Your task to perform on an android device: Go to Reddit.com Image 0: 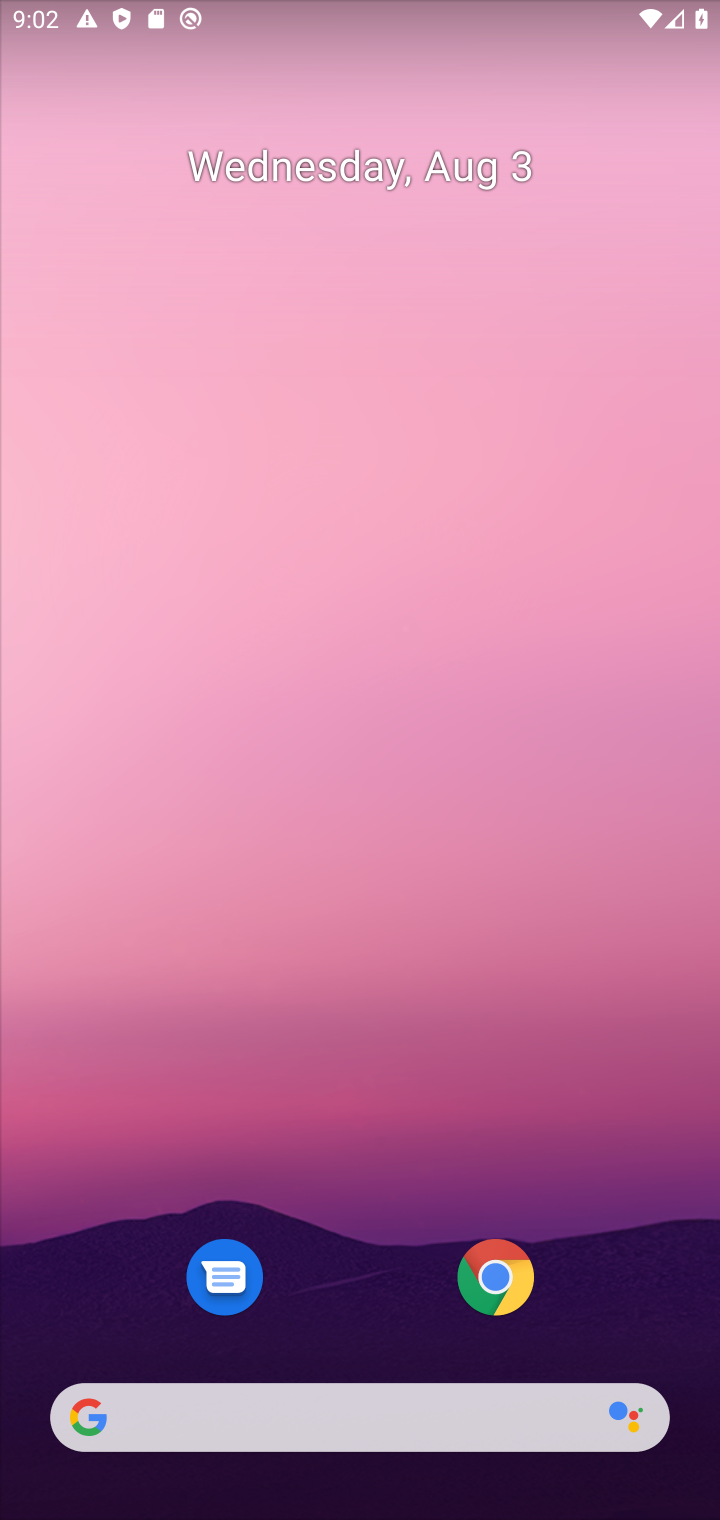
Step 0: drag from (366, 1201) to (406, 134)
Your task to perform on an android device: Go to Reddit.com Image 1: 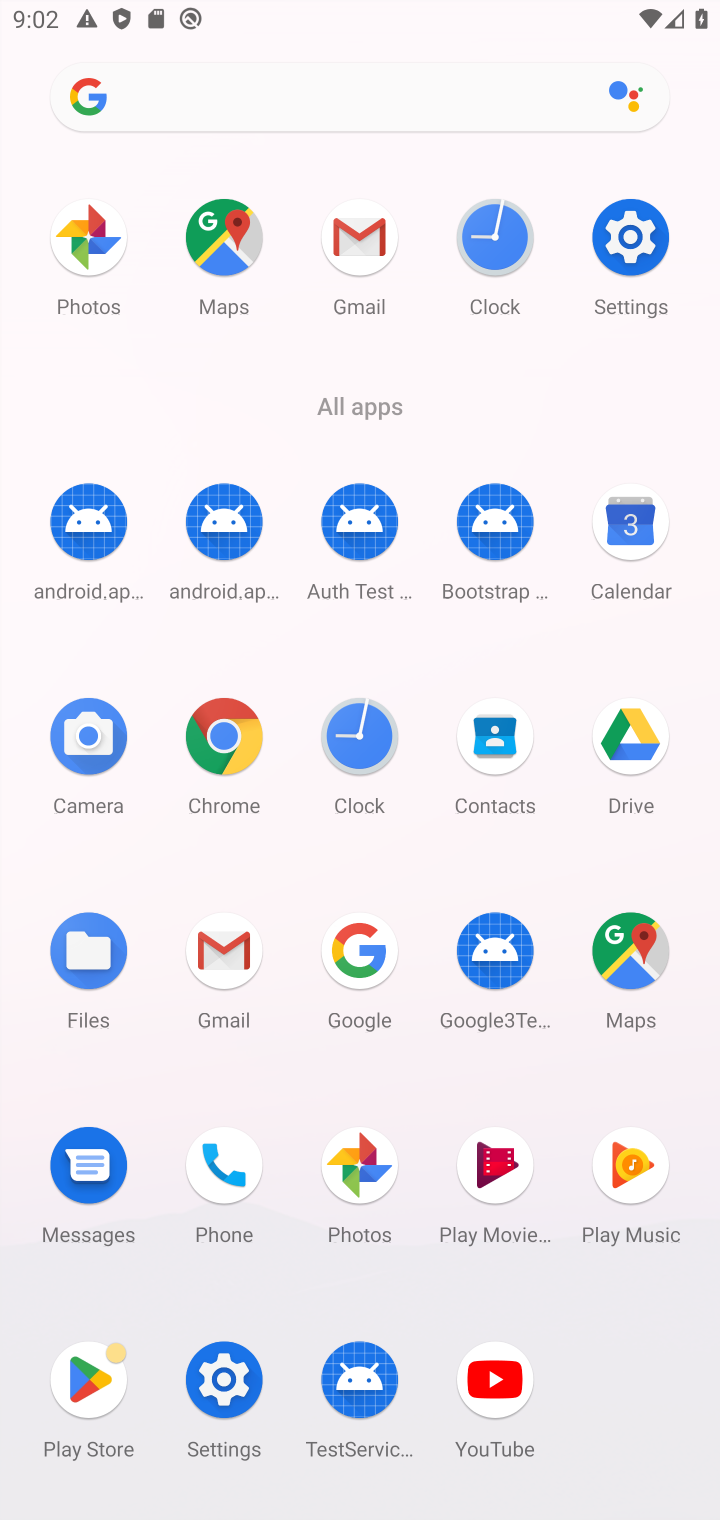
Step 1: click (224, 741)
Your task to perform on an android device: Go to Reddit.com Image 2: 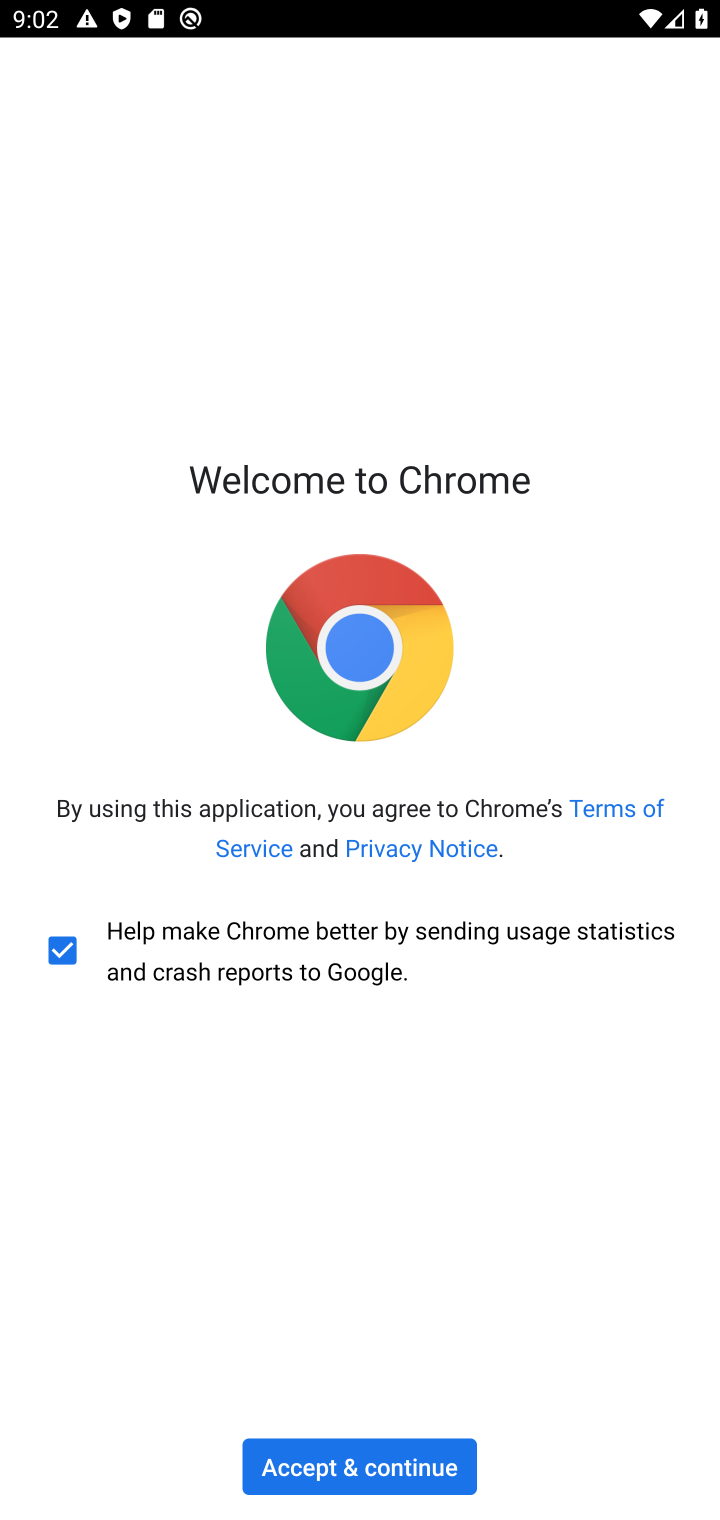
Step 2: click (366, 1469)
Your task to perform on an android device: Go to Reddit.com Image 3: 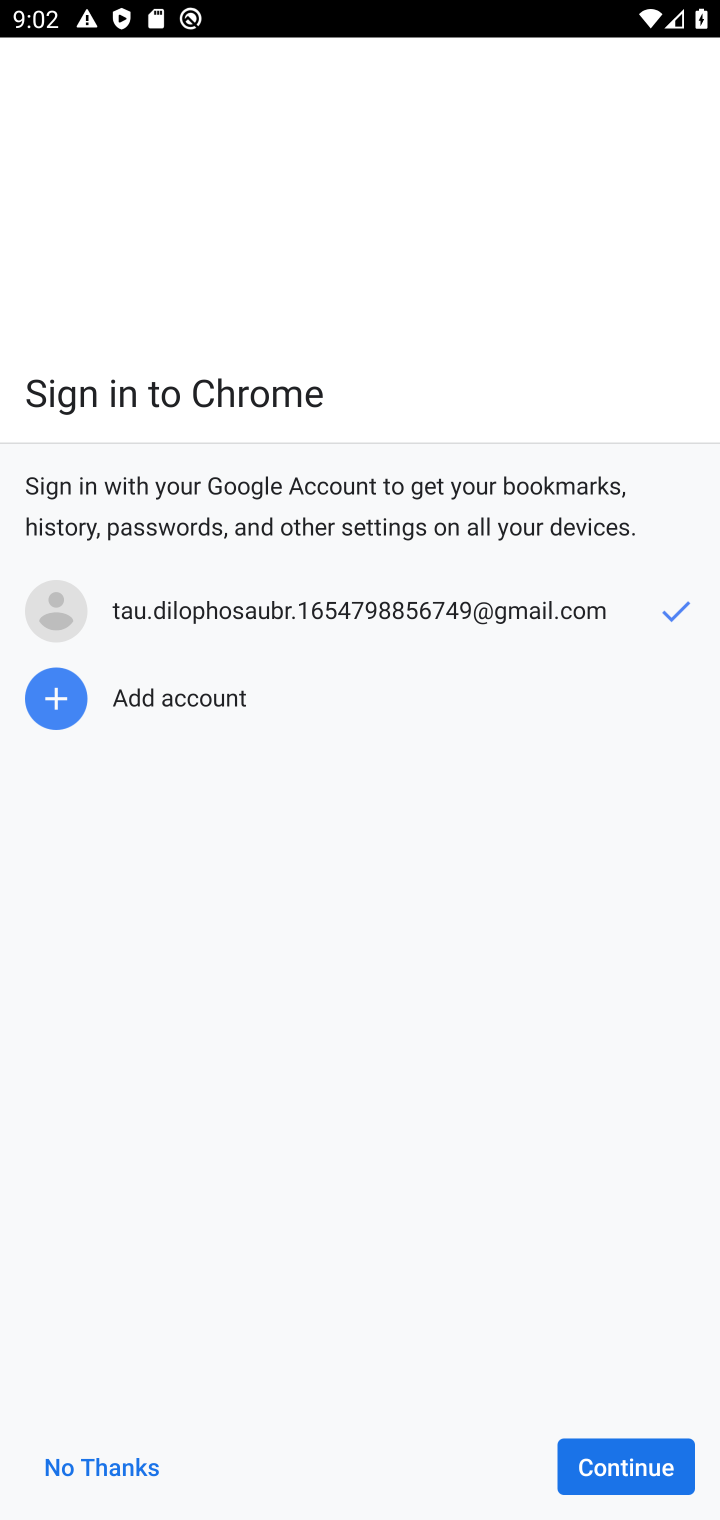
Step 3: click (638, 1461)
Your task to perform on an android device: Go to Reddit.com Image 4: 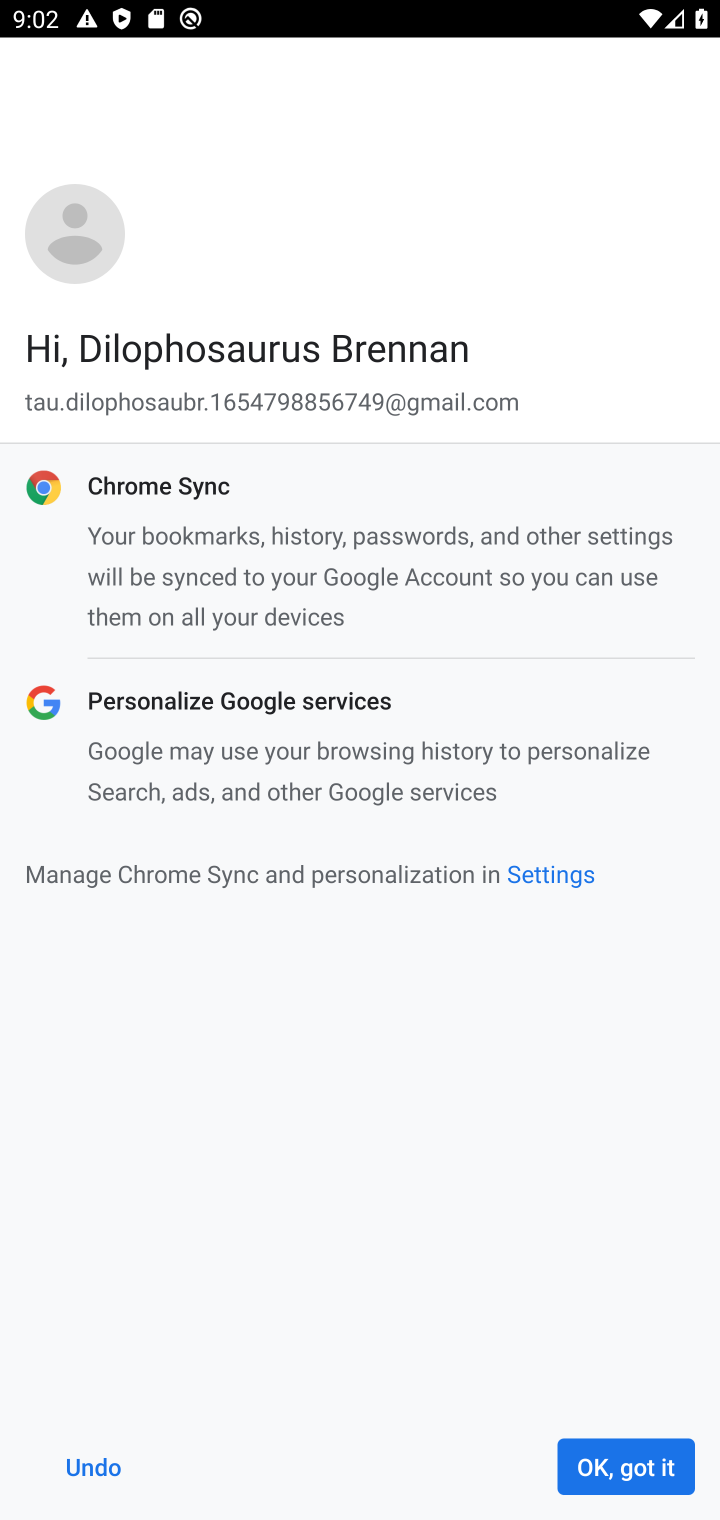
Step 4: click (642, 1471)
Your task to perform on an android device: Go to Reddit.com Image 5: 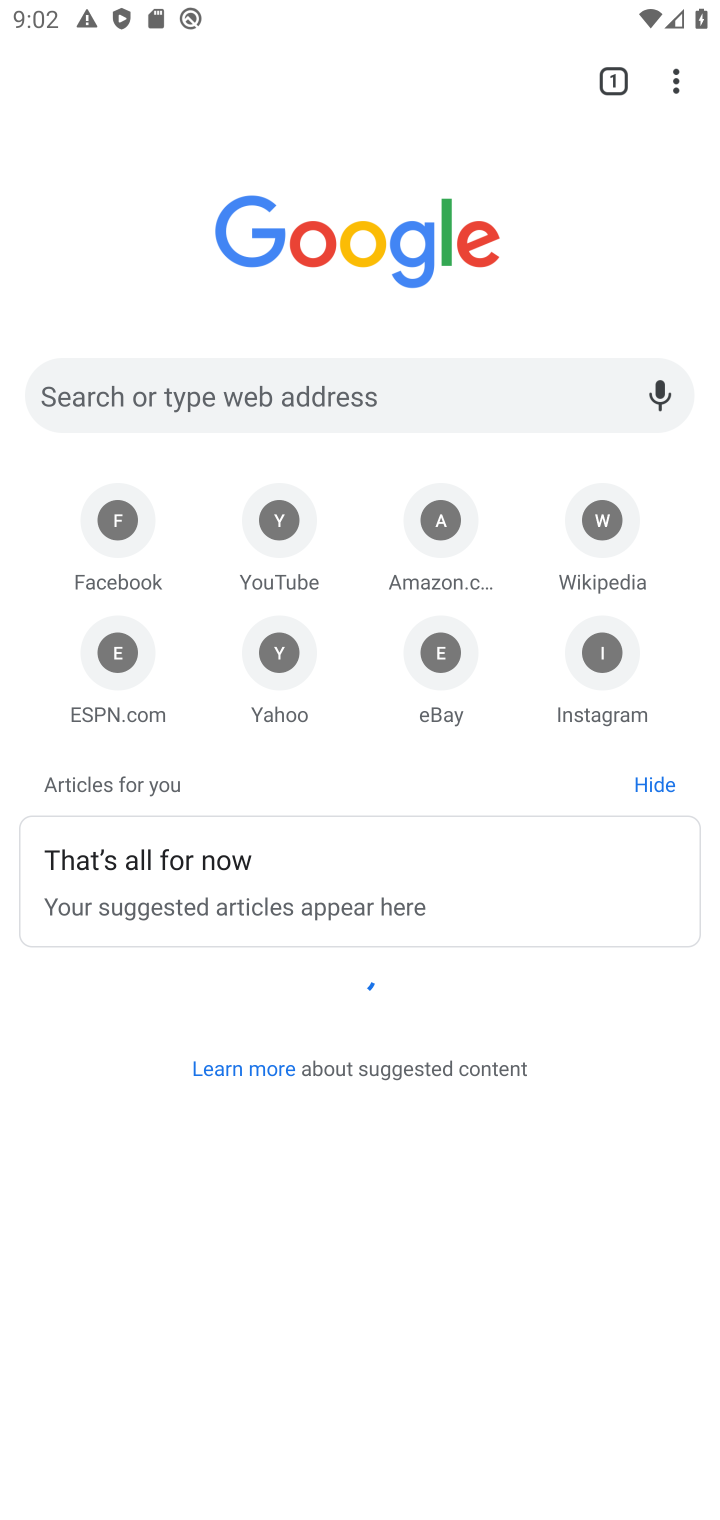
Step 5: click (433, 388)
Your task to perform on an android device: Go to Reddit.com Image 6: 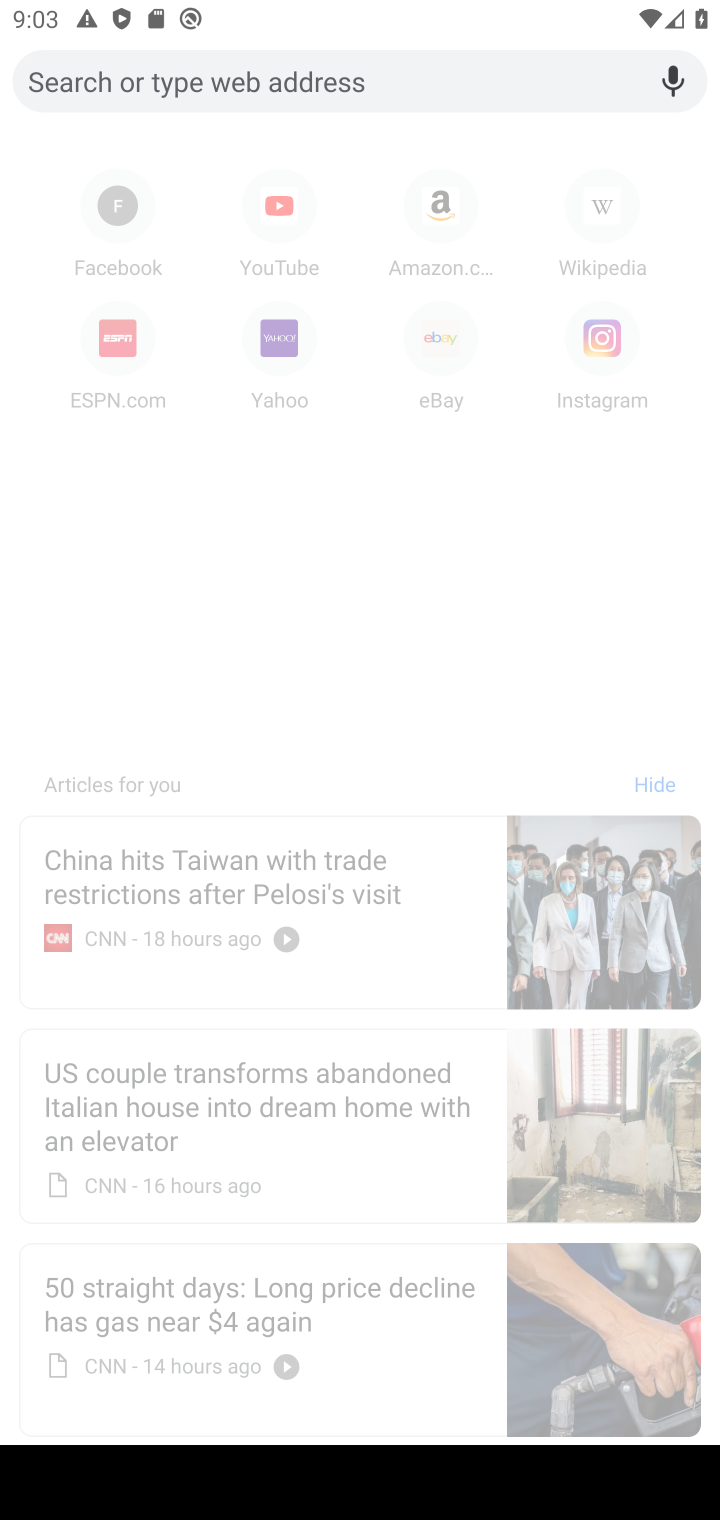
Step 6: type "reddit.com"
Your task to perform on an android device: Go to Reddit.com Image 7: 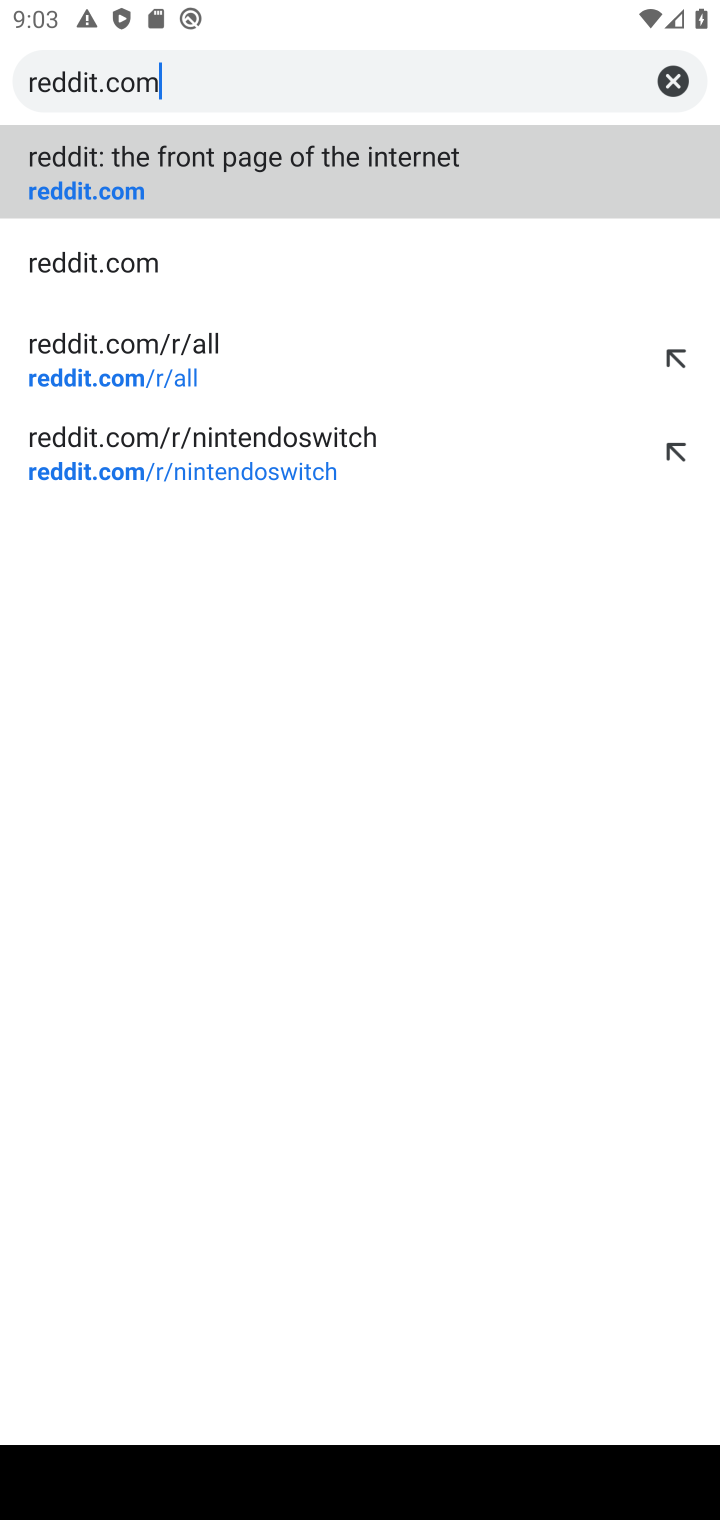
Step 7: click (349, 172)
Your task to perform on an android device: Go to Reddit.com Image 8: 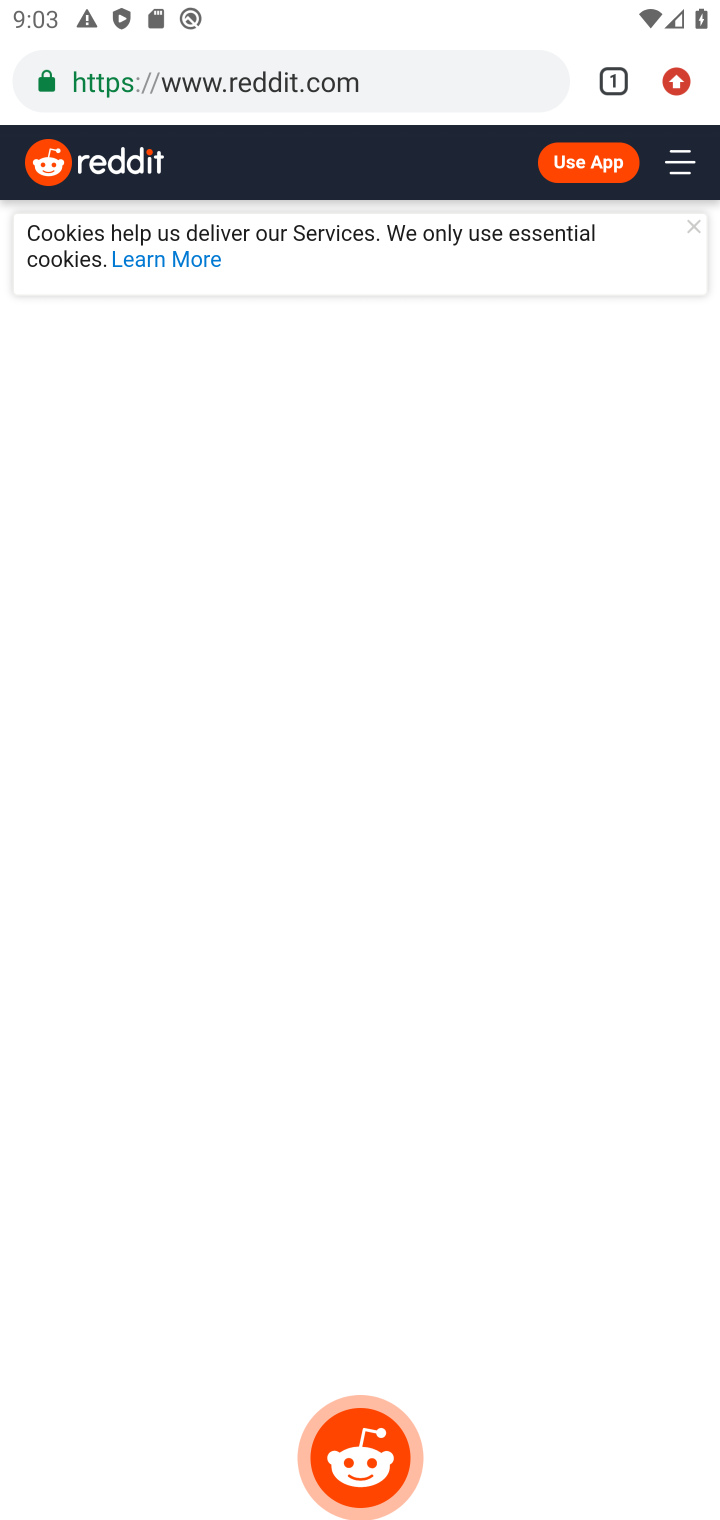
Step 8: task complete